Your task to perform on an android device: Clear the shopping cart on ebay. Add lg ultragear to the cart on ebay, then select checkout. Image 0: 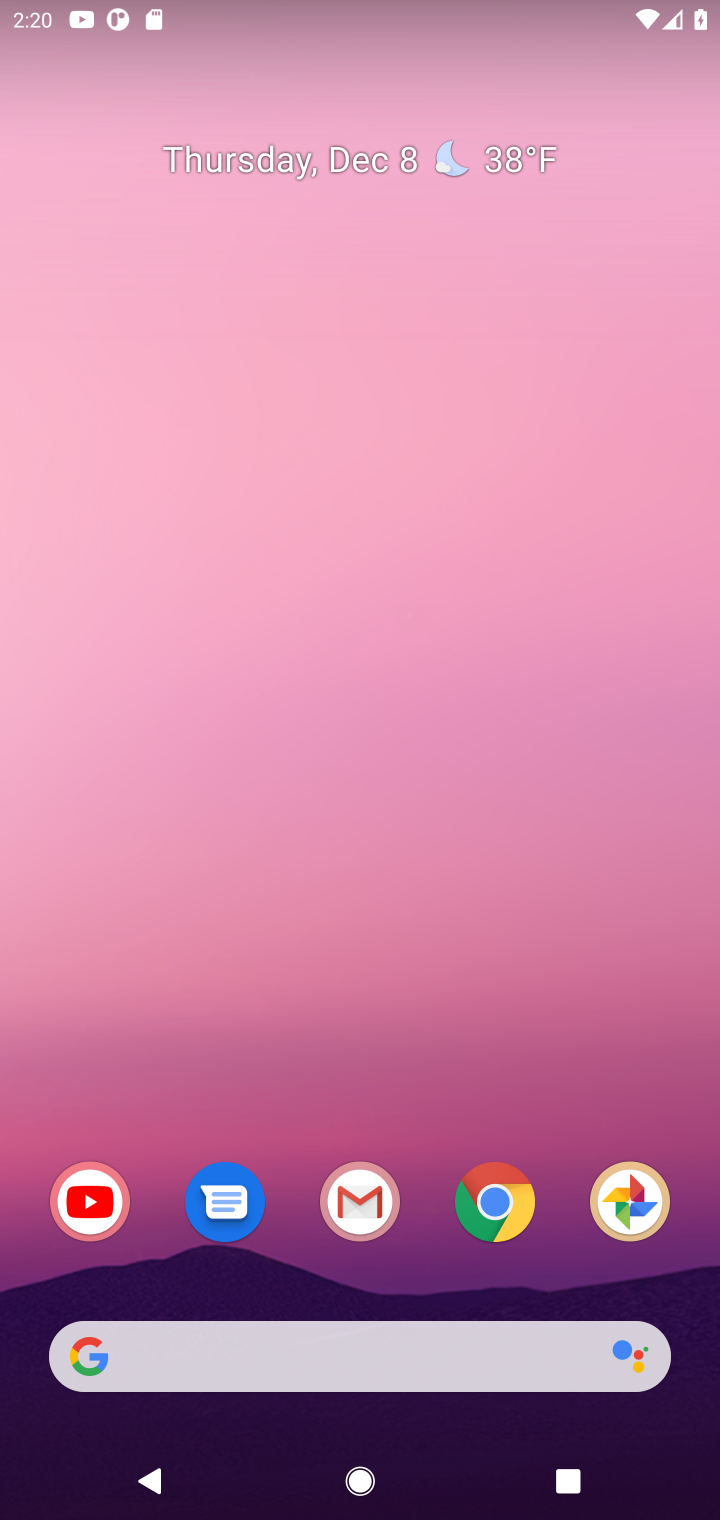
Step 0: click (505, 1208)
Your task to perform on an android device: Clear the shopping cart on ebay. Add lg ultragear to the cart on ebay, then select checkout. Image 1: 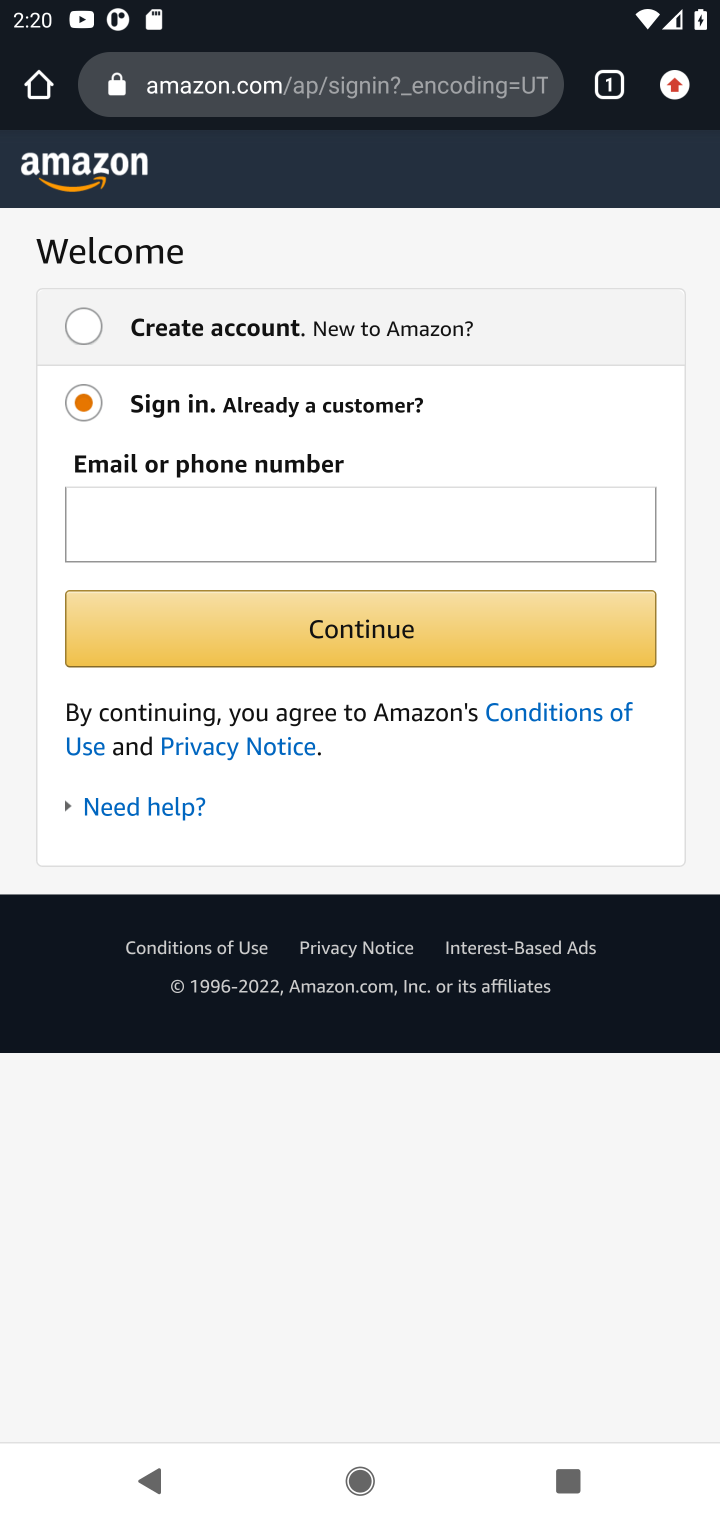
Step 1: click (356, 98)
Your task to perform on an android device: Clear the shopping cart on ebay. Add lg ultragear to the cart on ebay, then select checkout. Image 2: 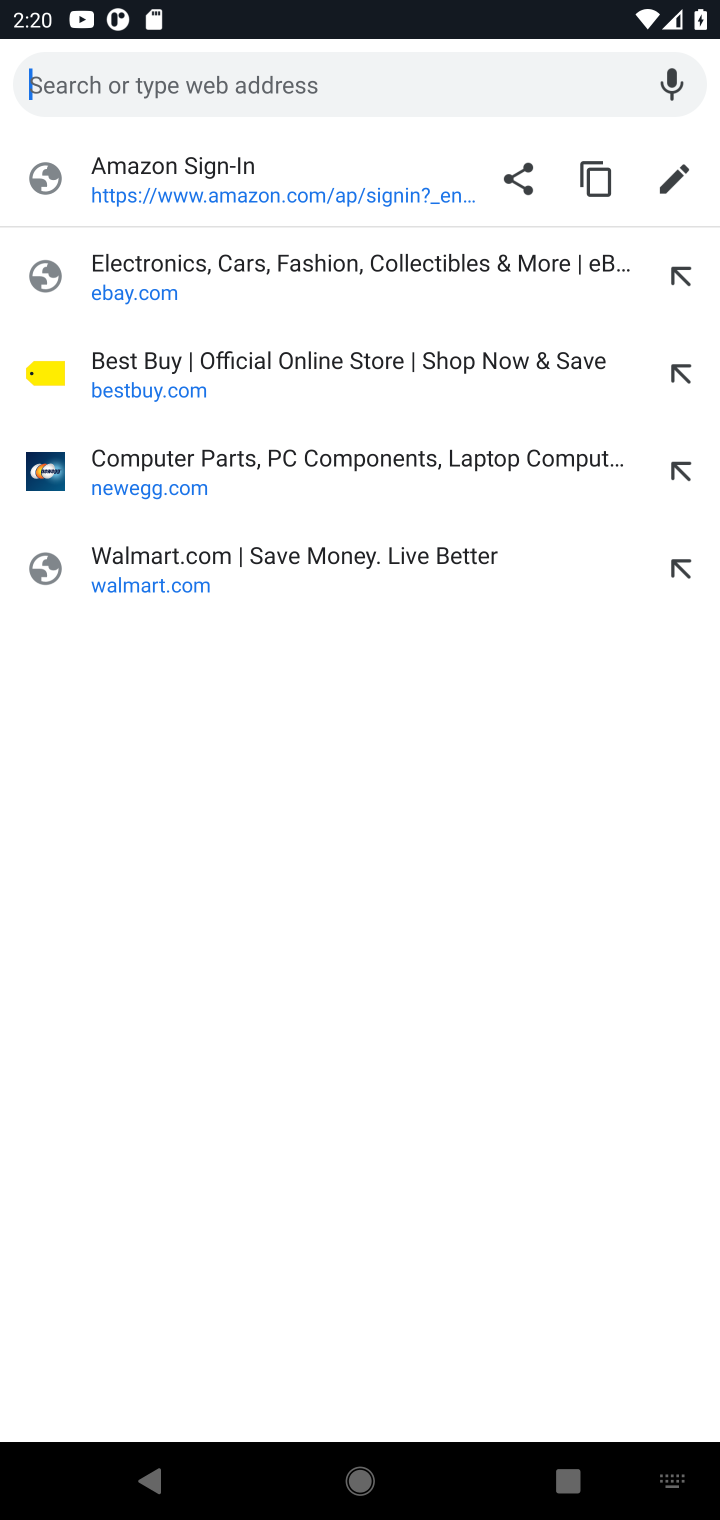
Step 2: click (158, 267)
Your task to perform on an android device: Clear the shopping cart on ebay. Add lg ultragear to the cart on ebay, then select checkout. Image 3: 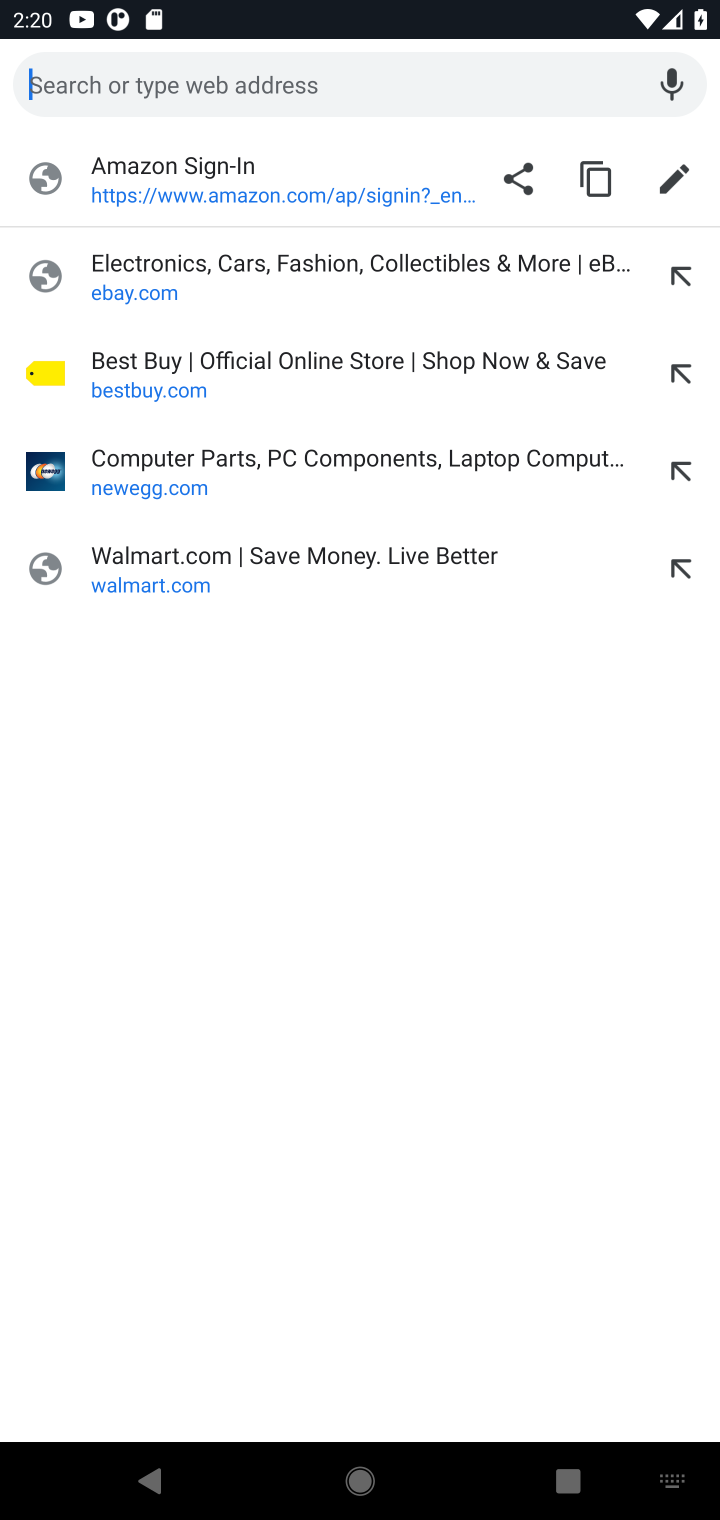
Step 3: click (158, 267)
Your task to perform on an android device: Clear the shopping cart on ebay. Add lg ultragear to the cart on ebay, then select checkout. Image 4: 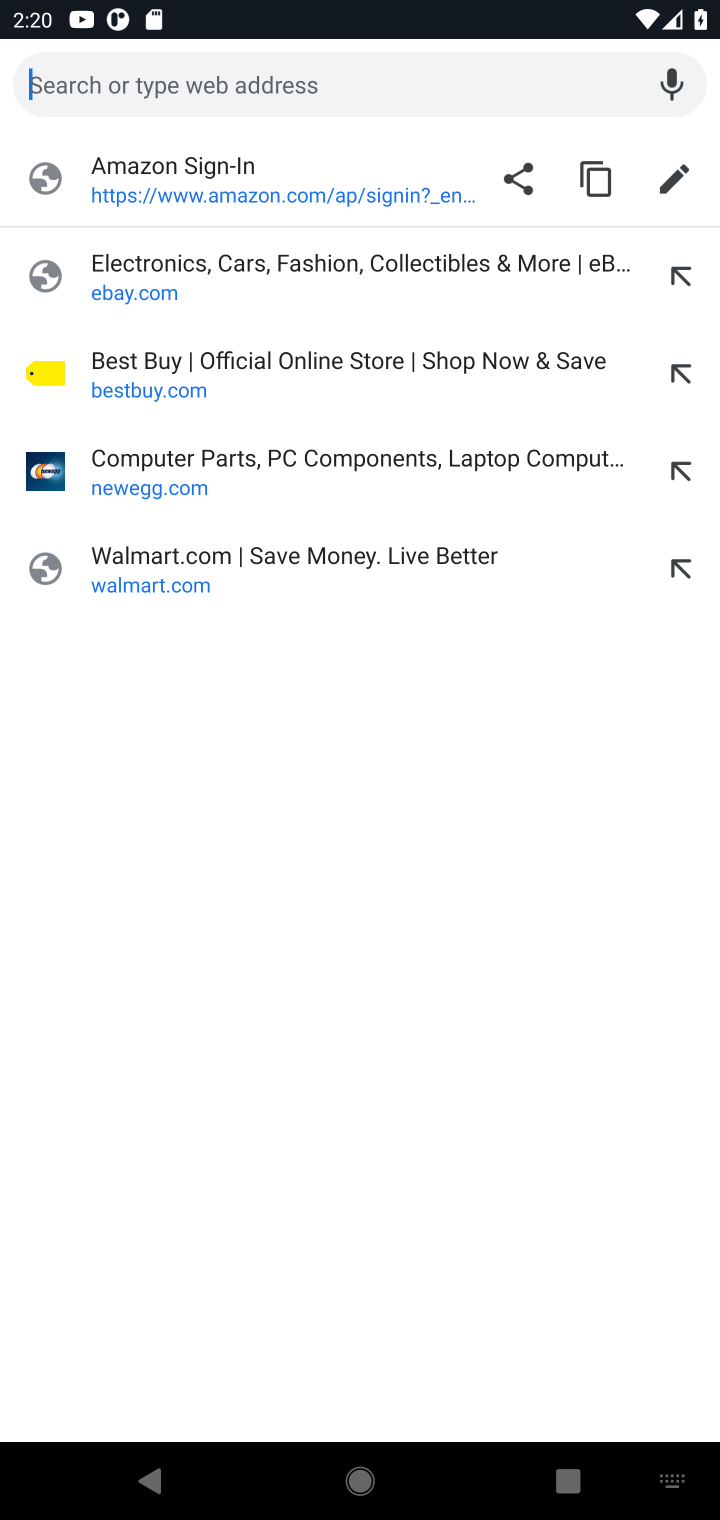
Step 4: click (179, 252)
Your task to perform on an android device: Clear the shopping cart on ebay. Add lg ultragear to the cart on ebay, then select checkout. Image 5: 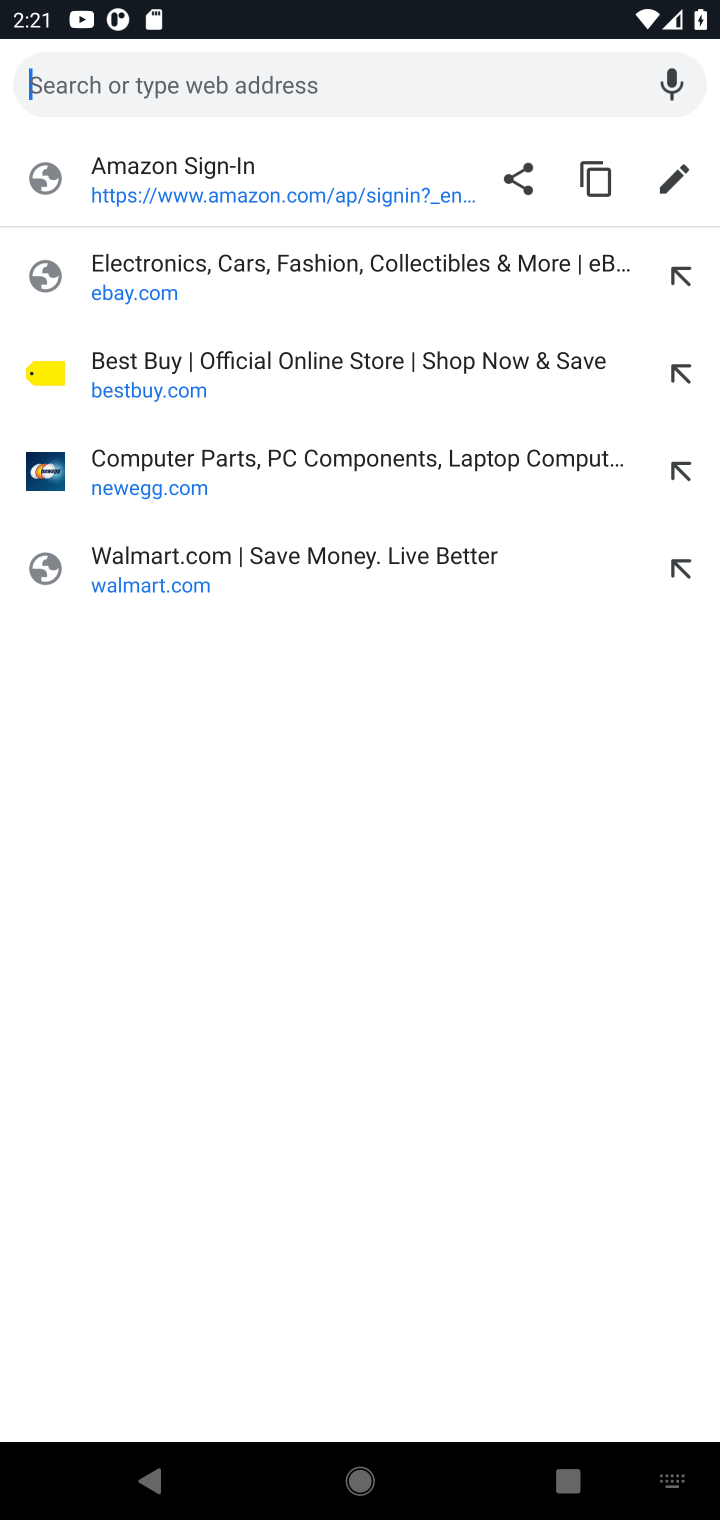
Step 5: click (330, 260)
Your task to perform on an android device: Clear the shopping cart on ebay. Add lg ultragear to the cart on ebay, then select checkout. Image 6: 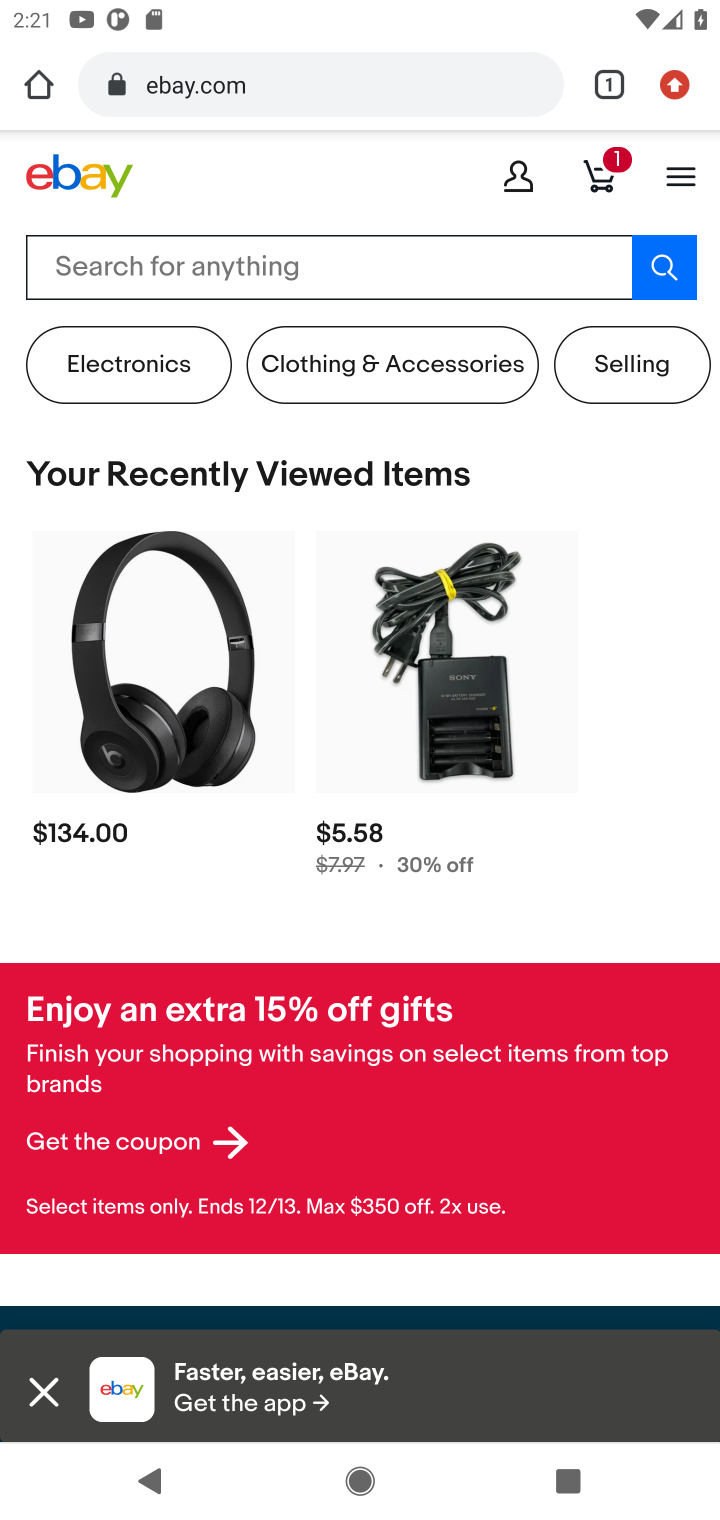
Step 6: click (607, 176)
Your task to perform on an android device: Clear the shopping cart on ebay. Add lg ultragear to the cart on ebay, then select checkout. Image 7: 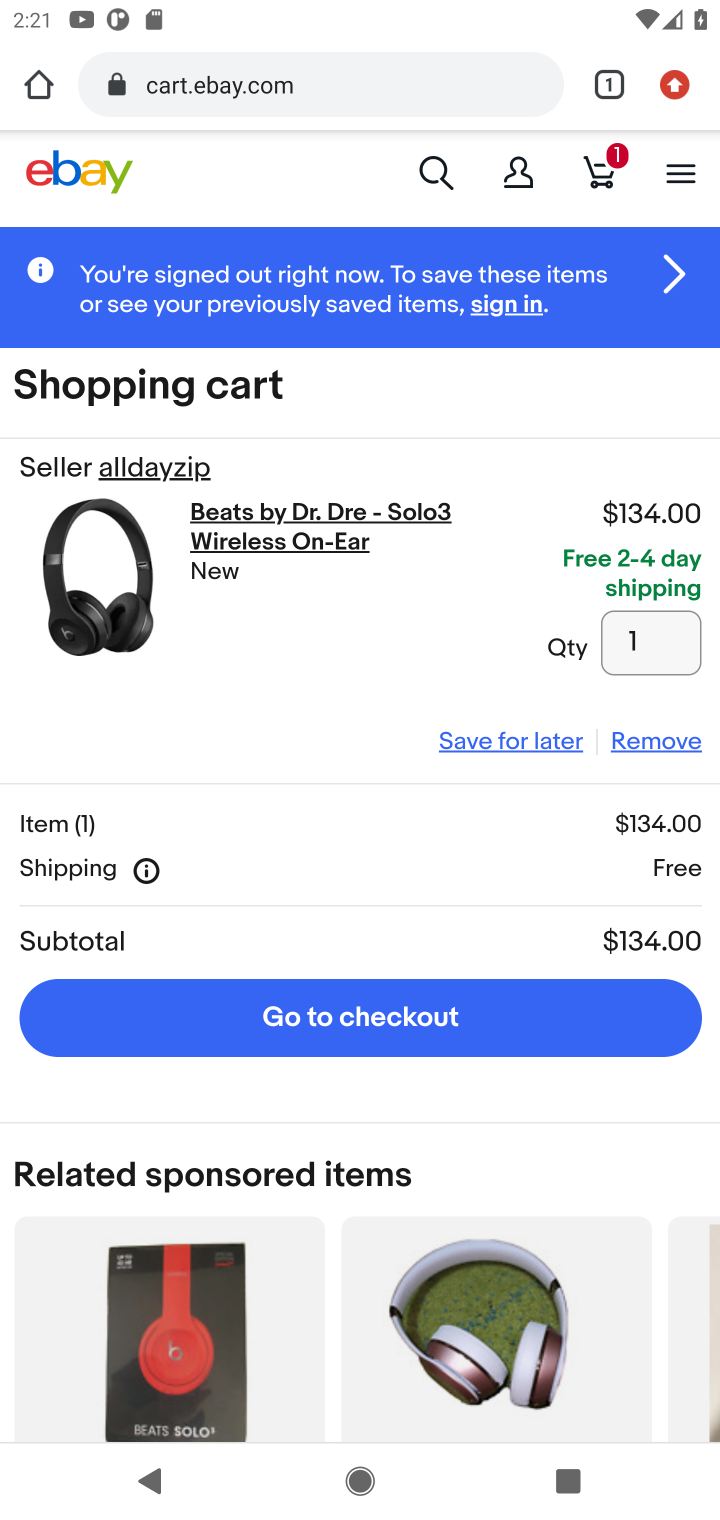
Step 7: click (651, 742)
Your task to perform on an android device: Clear the shopping cart on ebay. Add lg ultragear to the cart on ebay, then select checkout. Image 8: 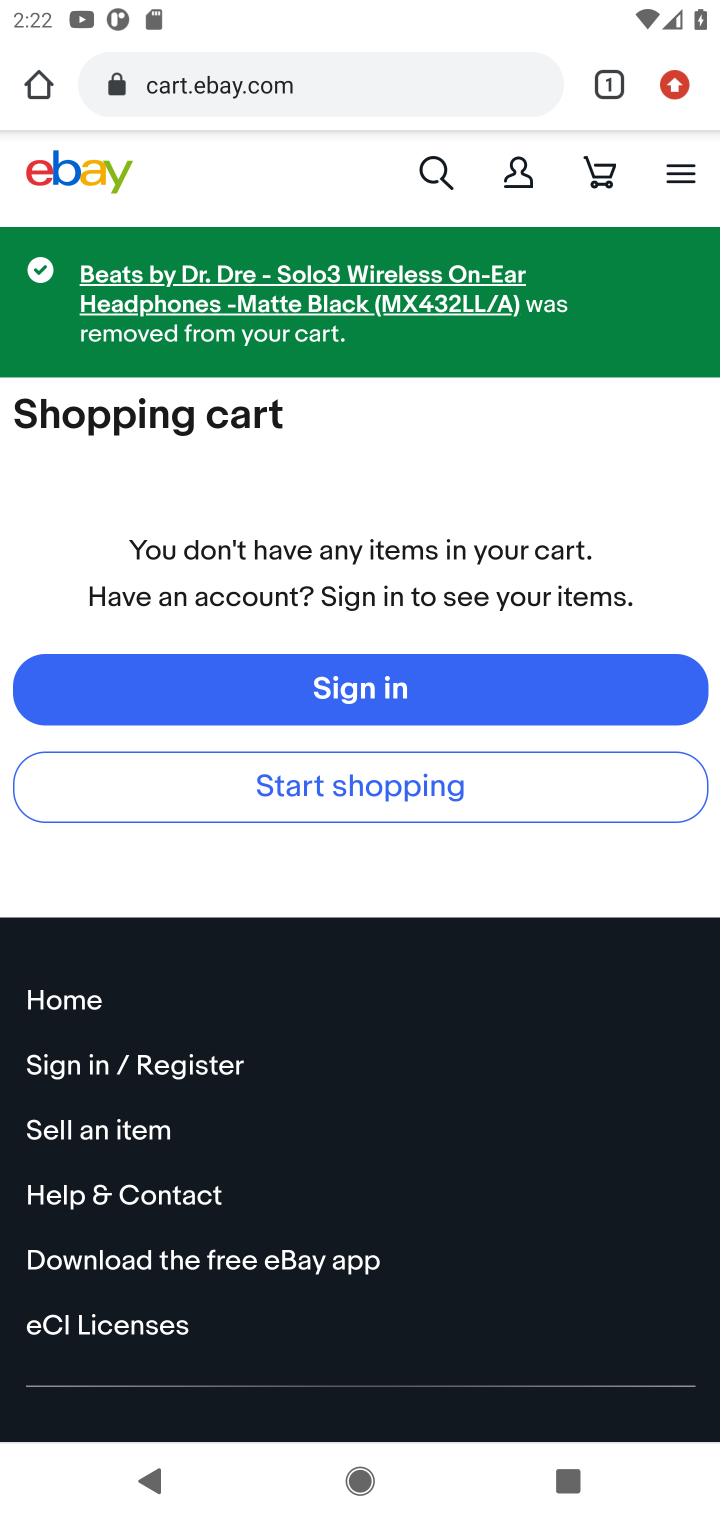
Step 8: click (444, 171)
Your task to perform on an android device: Clear the shopping cart on ebay. Add lg ultragear to the cart on ebay, then select checkout. Image 9: 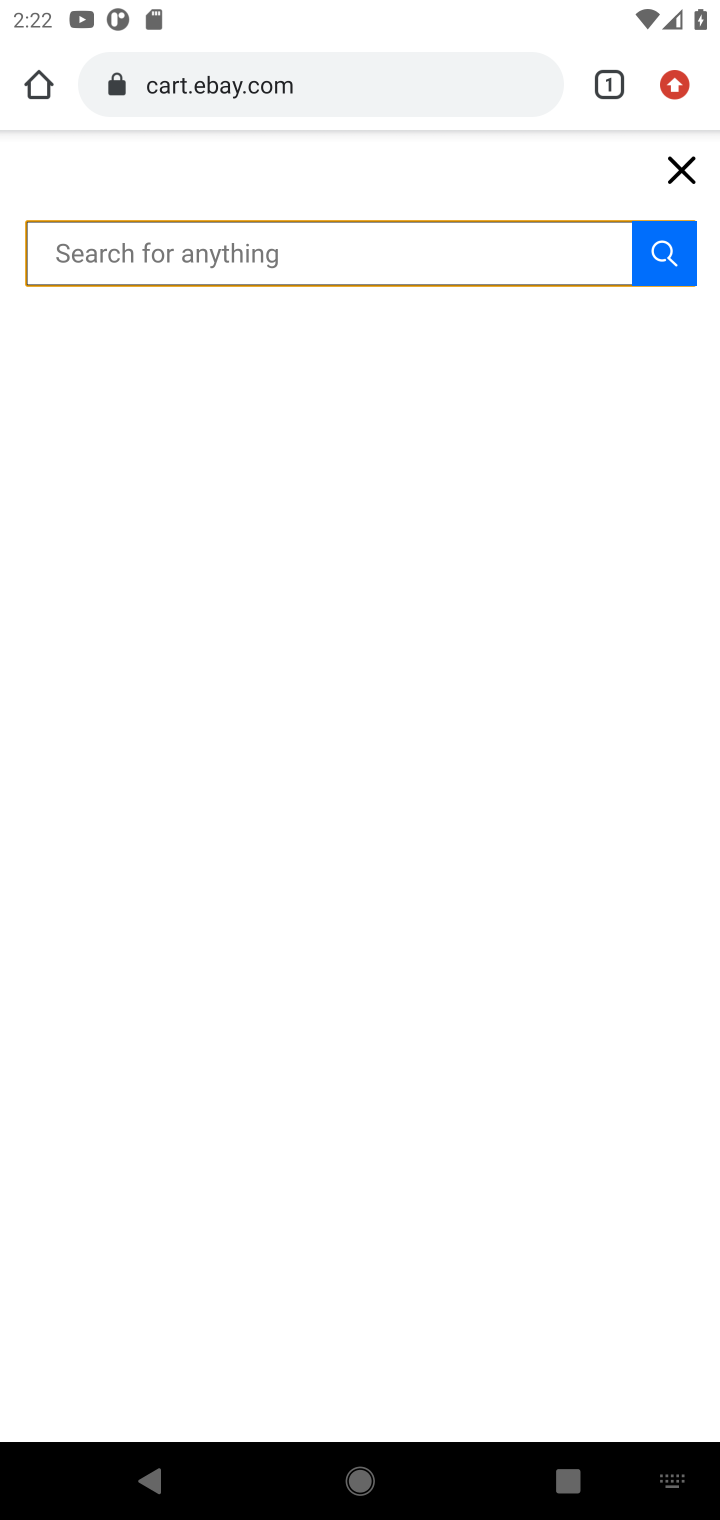
Step 9: press enter
Your task to perform on an android device: Clear the shopping cart on ebay. Add lg ultragear to the cart on ebay, then select checkout. Image 10: 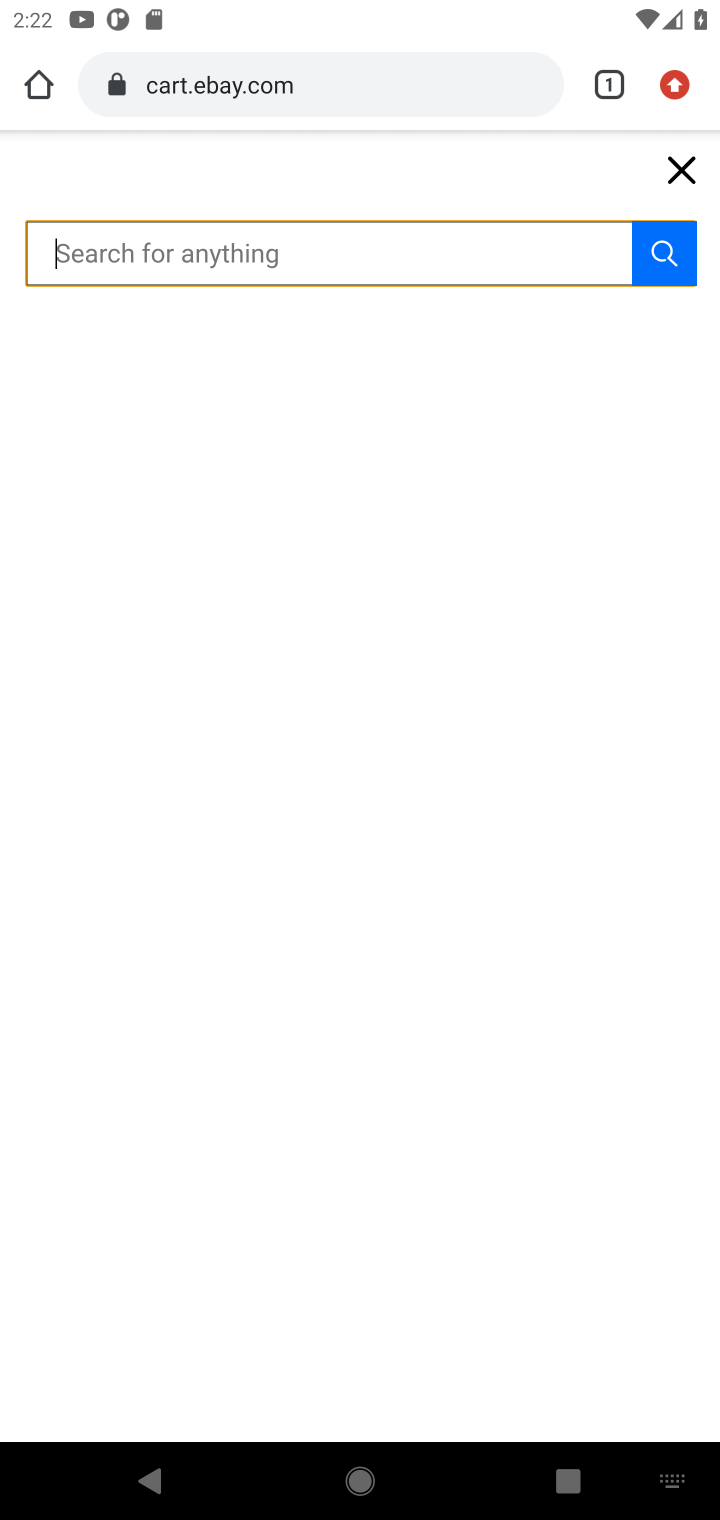
Step 10: type " lg ultragear"
Your task to perform on an android device: Clear the shopping cart on ebay. Add lg ultragear to the cart on ebay, then select checkout. Image 11: 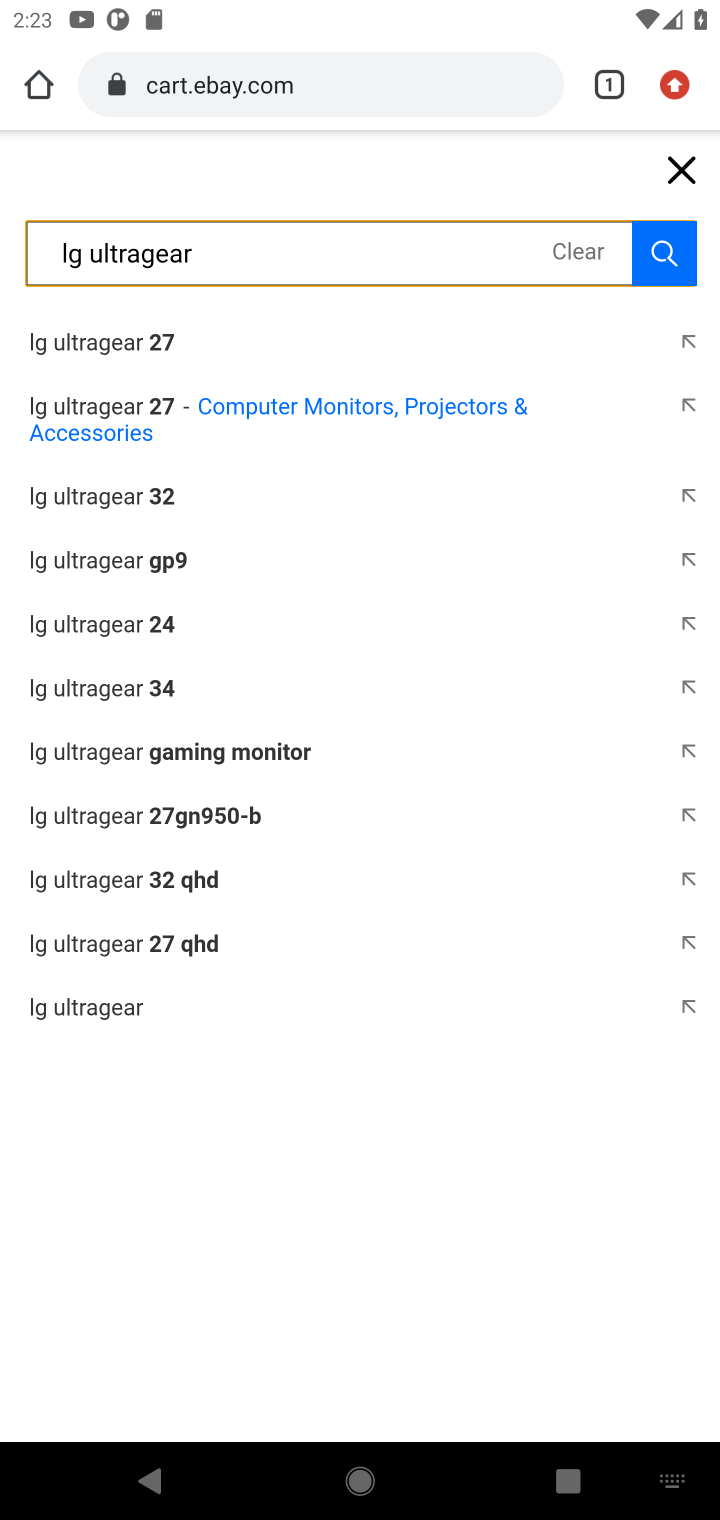
Step 11: click (121, 1005)
Your task to perform on an android device: Clear the shopping cart on ebay. Add lg ultragear to the cart on ebay, then select checkout. Image 12: 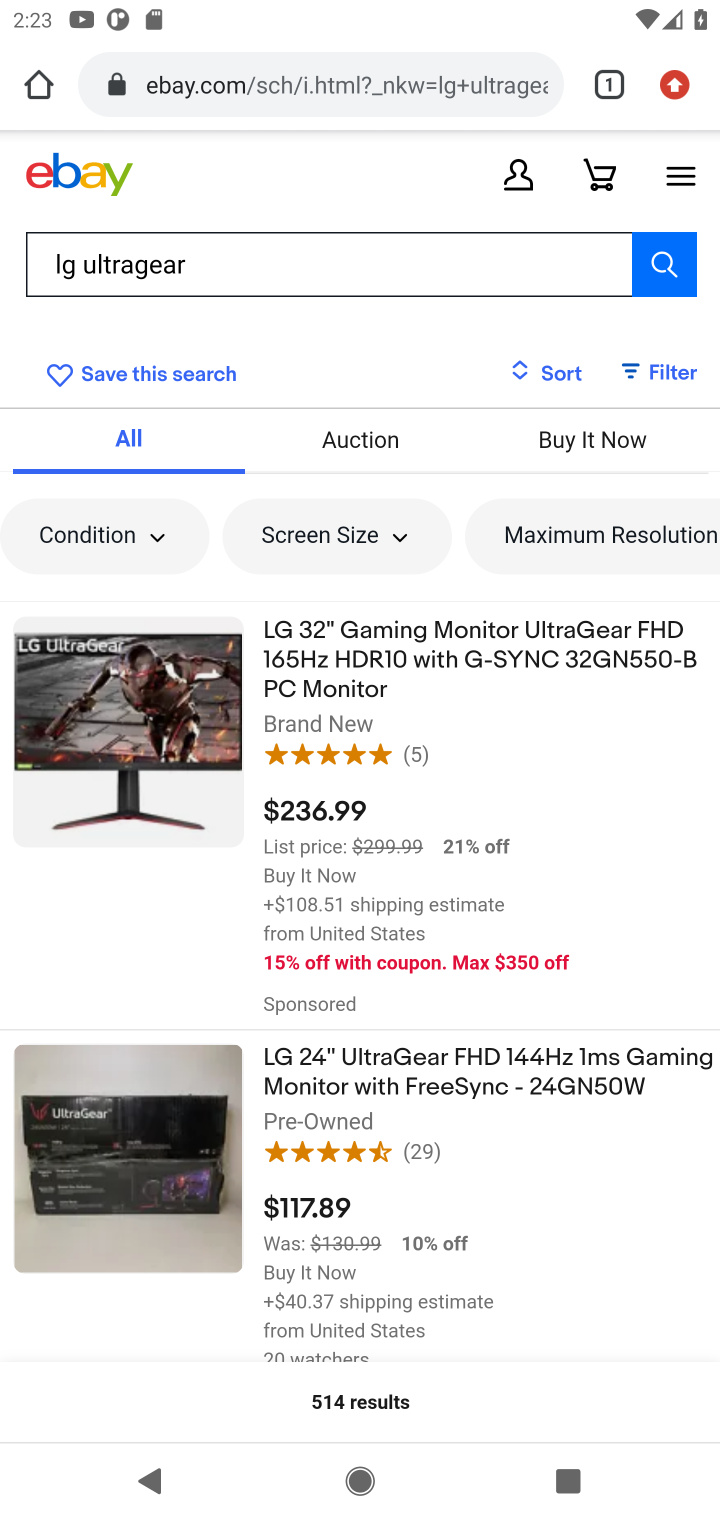
Step 12: click (156, 725)
Your task to perform on an android device: Clear the shopping cart on ebay. Add lg ultragear to the cart on ebay, then select checkout. Image 13: 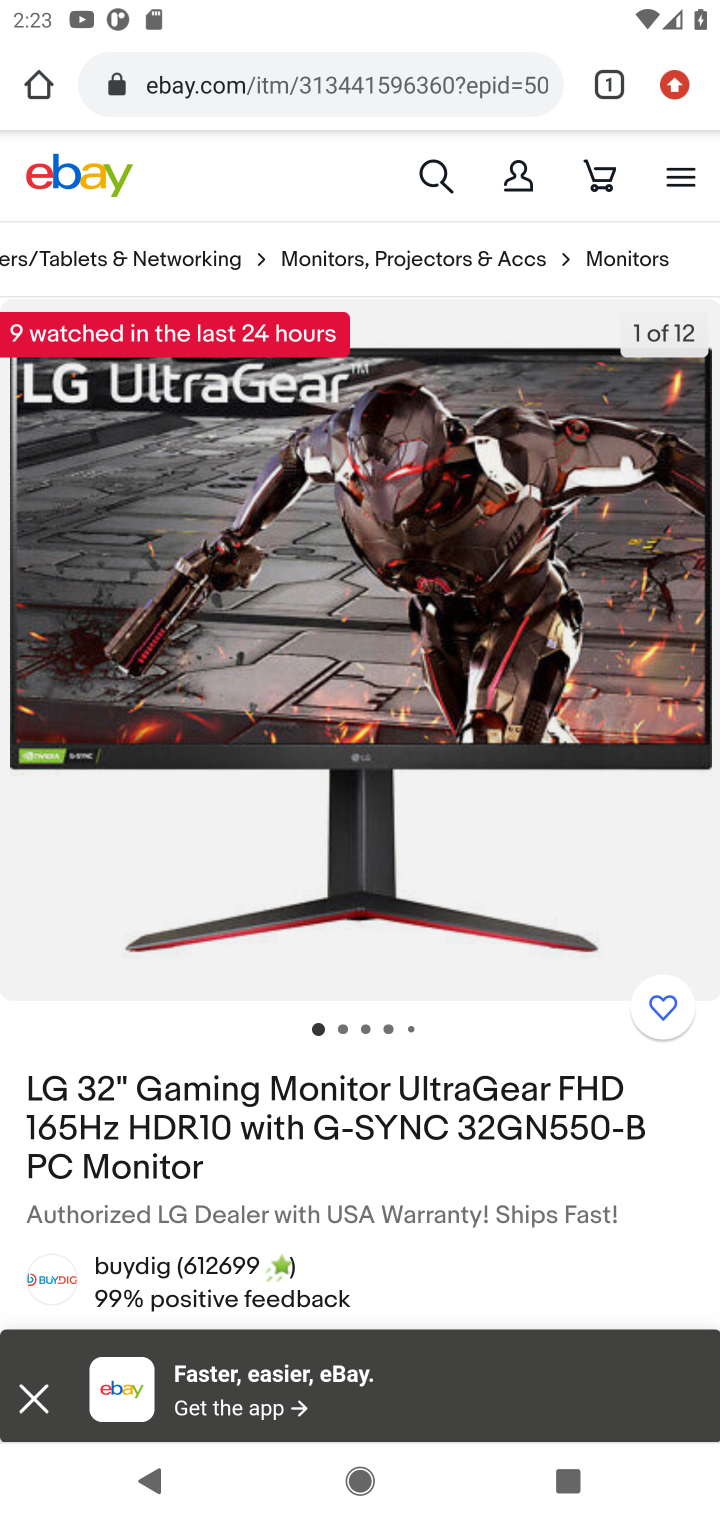
Step 13: drag from (555, 850) to (660, 266)
Your task to perform on an android device: Clear the shopping cart on ebay. Add lg ultragear to the cart on ebay, then select checkout. Image 14: 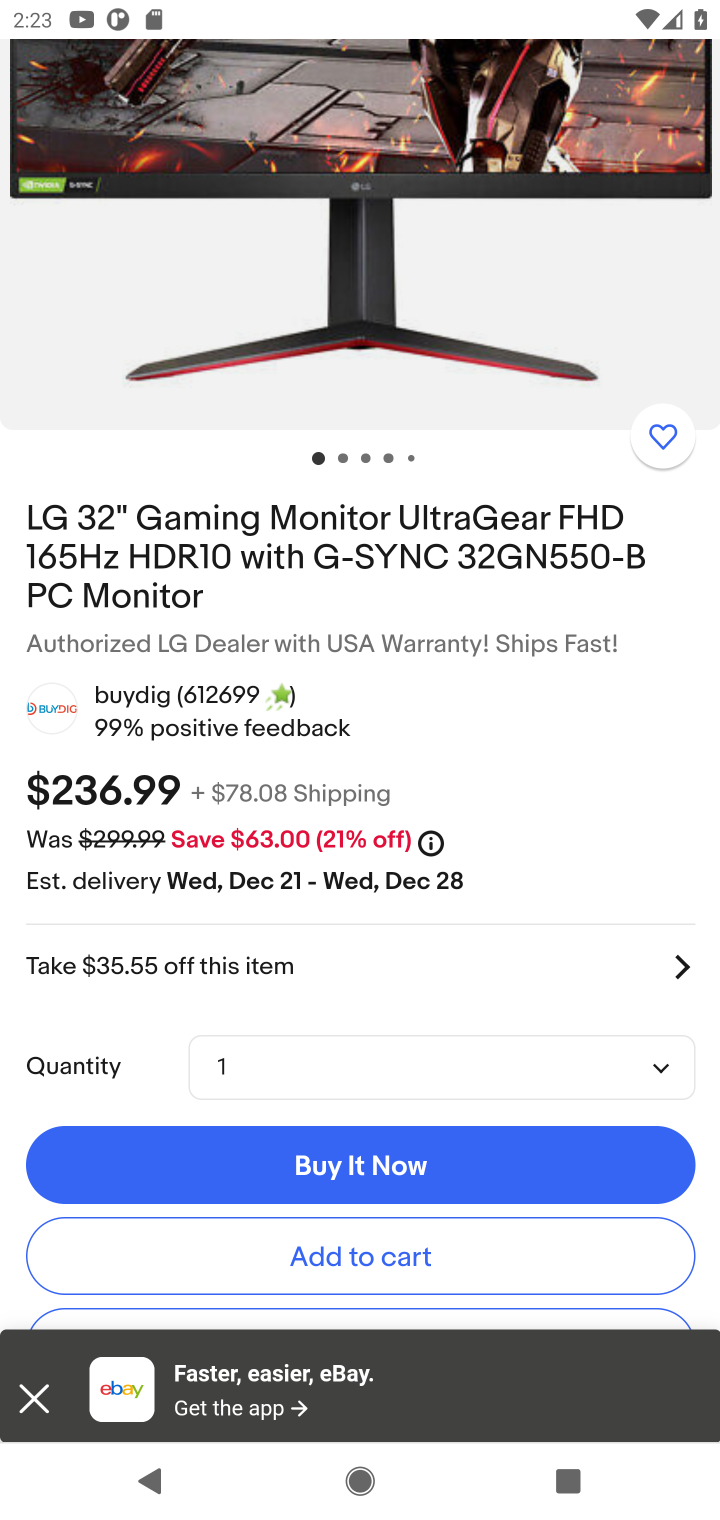
Step 14: click (410, 1247)
Your task to perform on an android device: Clear the shopping cart on ebay. Add lg ultragear to the cart on ebay, then select checkout. Image 15: 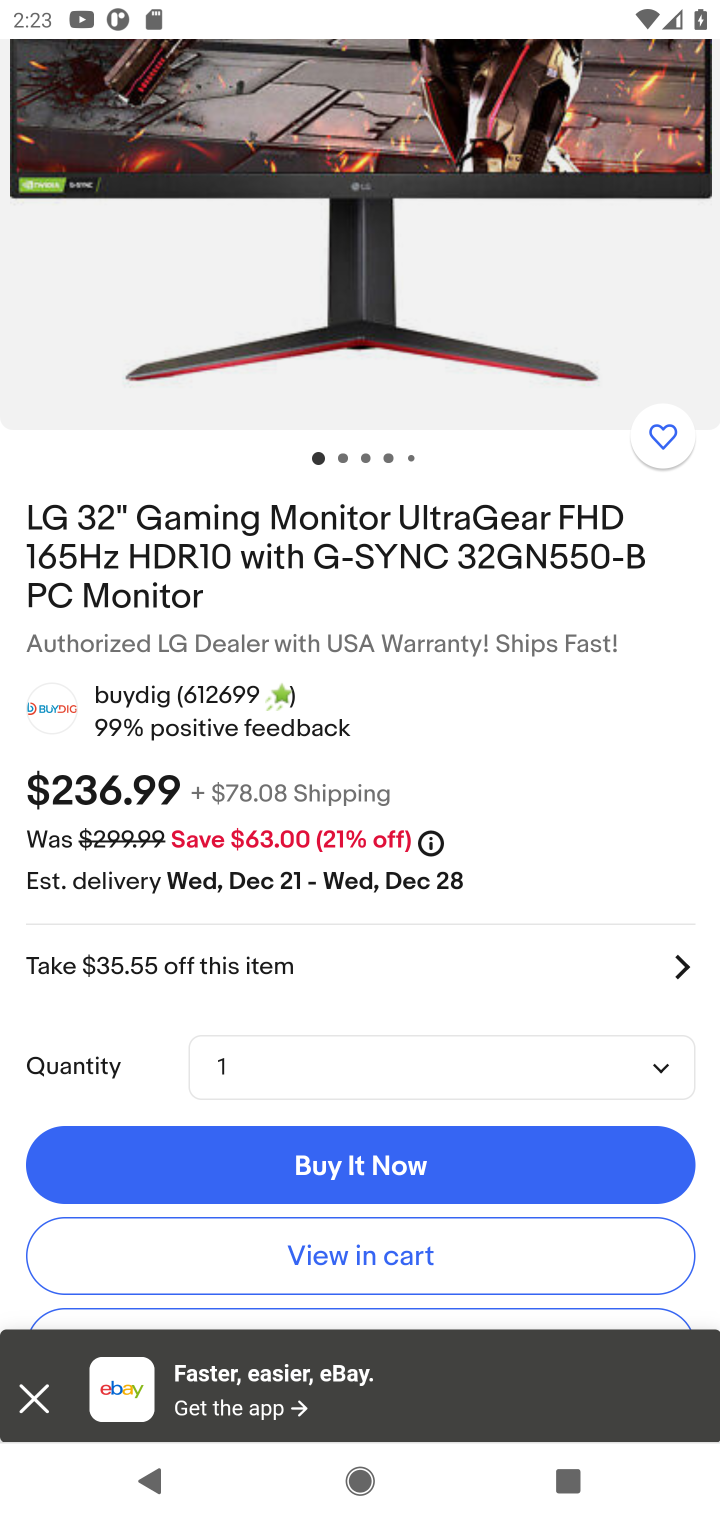
Step 15: click (411, 1247)
Your task to perform on an android device: Clear the shopping cart on ebay. Add lg ultragear to the cart on ebay, then select checkout. Image 16: 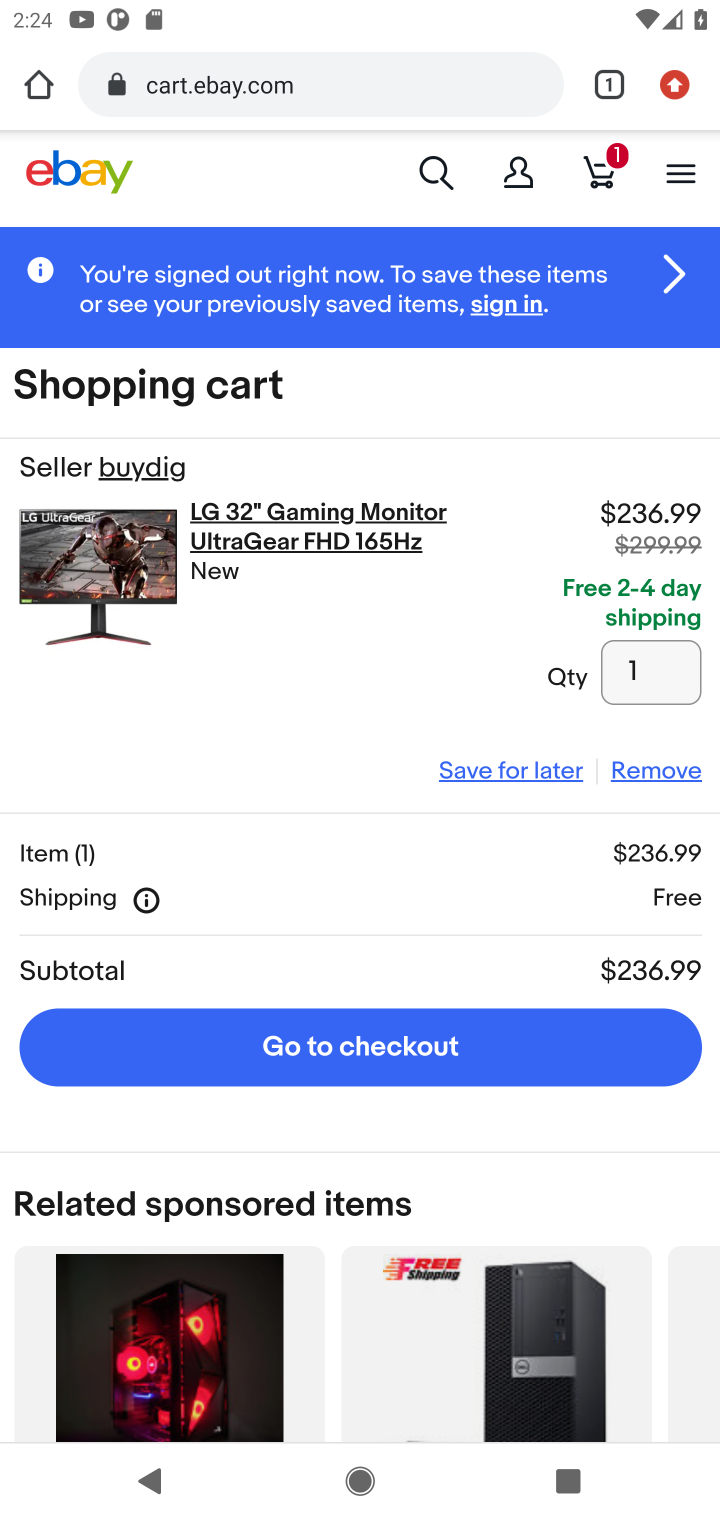
Step 16: click (349, 1052)
Your task to perform on an android device: Clear the shopping cart on ebay. Add lg ultragear to the cart on ebay, then select checkout. Image 17: 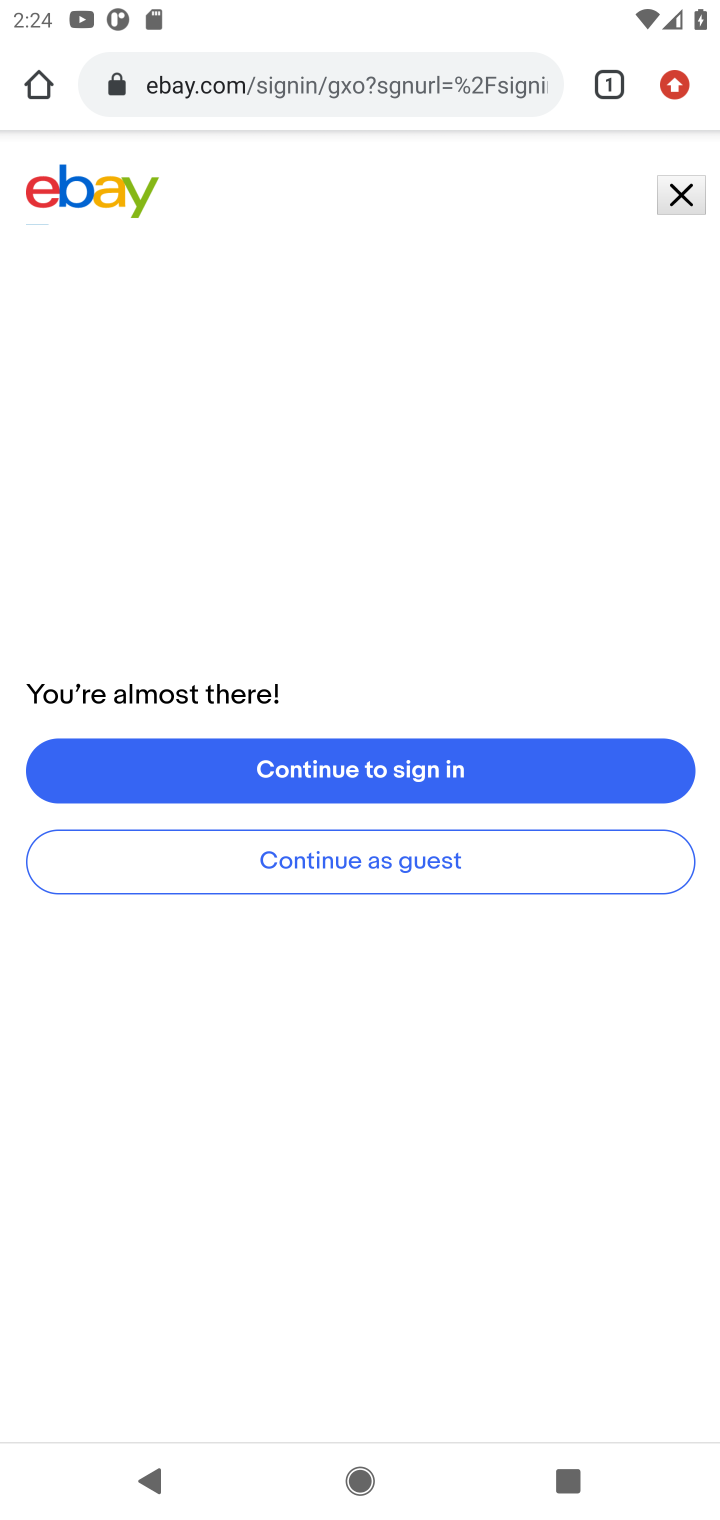
Step 17: task complete